Your task to perform on an android device: toggle notification dots Image 0: 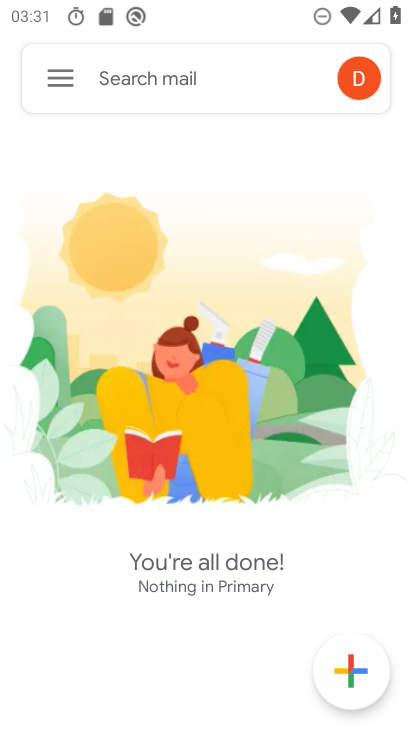
Step 0: press home button
Your task to perform on an android device: toggle notification dots Image 1: 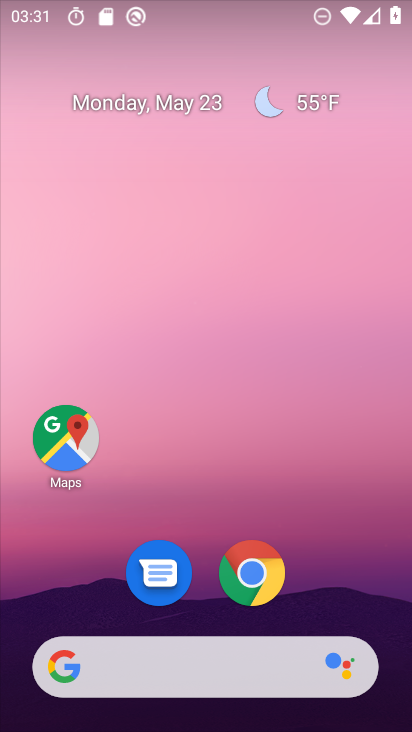
Step 1: drag from (335, 577) to (278, 53)
Your task to perform on an android device: toggle notification dots Image 2: 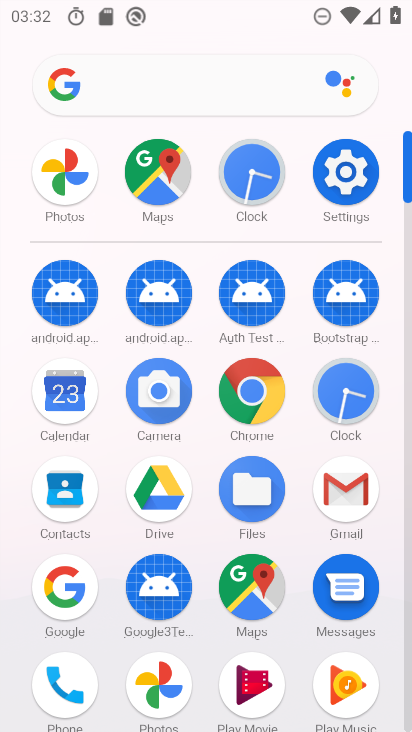
Step 2: click (343, 171)
Your task to perform on an android device: toggle notification dots Image 3: 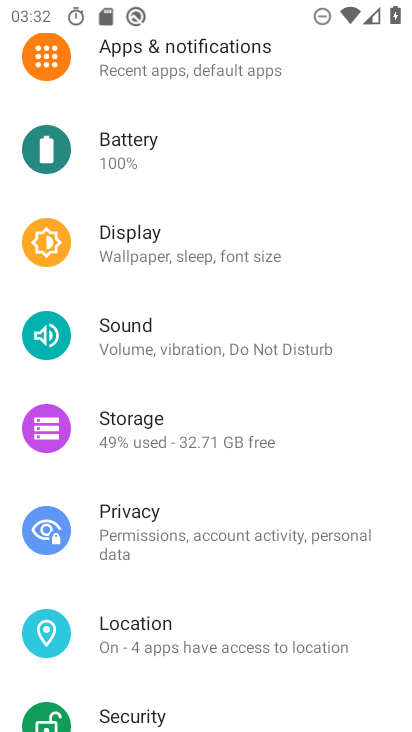
Step 3: click (218, 62)
Your task to perform on an android device: toggle notification dots Image 4: 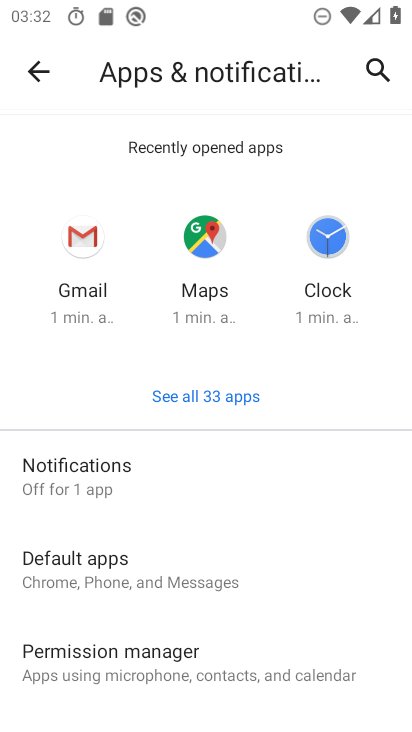
Step 4: click (137, 490)
Your task to perform on an android device: toggle notification dots Image 5: 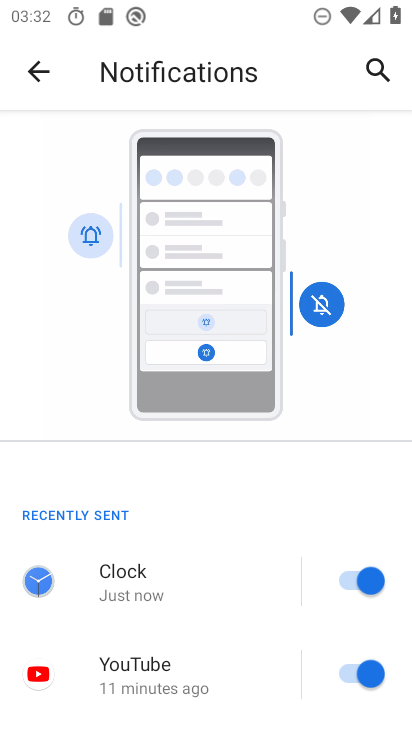
Step 5: drag from (259, 623) to (251, 222)
Your task to perform on an android device: toggle notification dots Image 6: 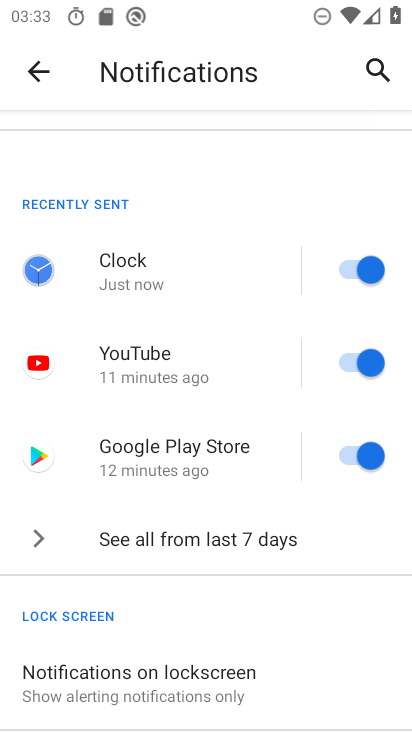
Step 6: click (219, 669)
Your task to perform on an android device: toggle notification dots Image 7: 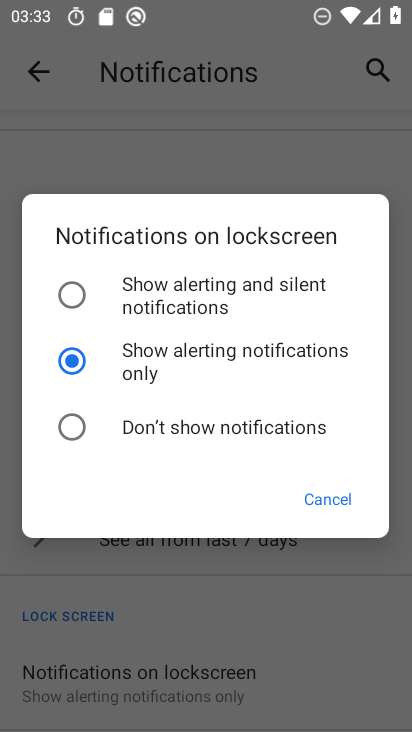
Step 7: click (277, 628)
Your task to perform on an android device: toggle notification dots Image 8: 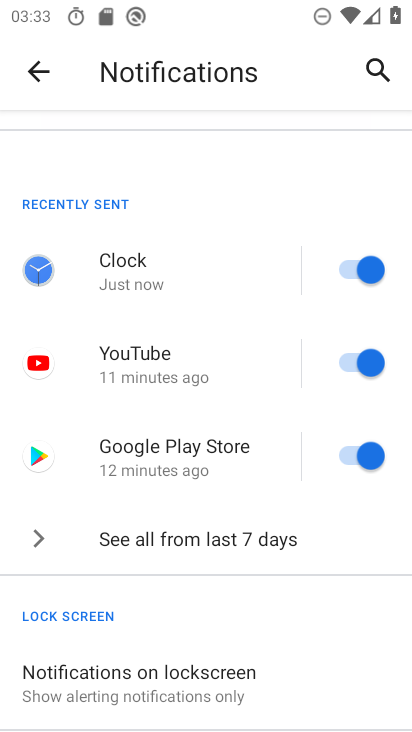
Step 8: drag from (301, 626) to (241, 219)
Your task to perform on an android device: toggle notification dots Image 9: 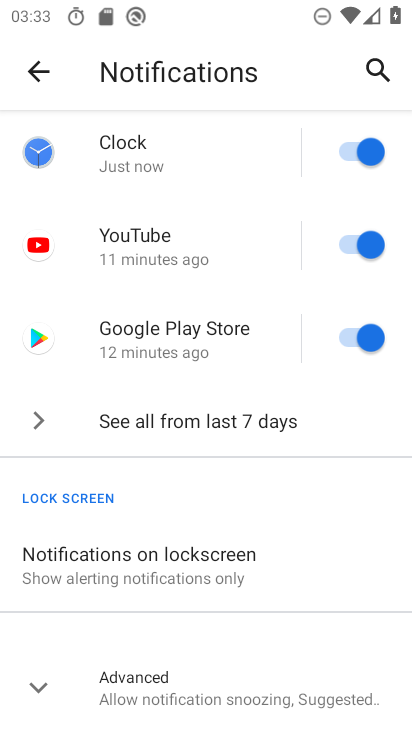
Step 9: click (259, 701)
Your task to perform on an android device: toggle notification dots Image 10: 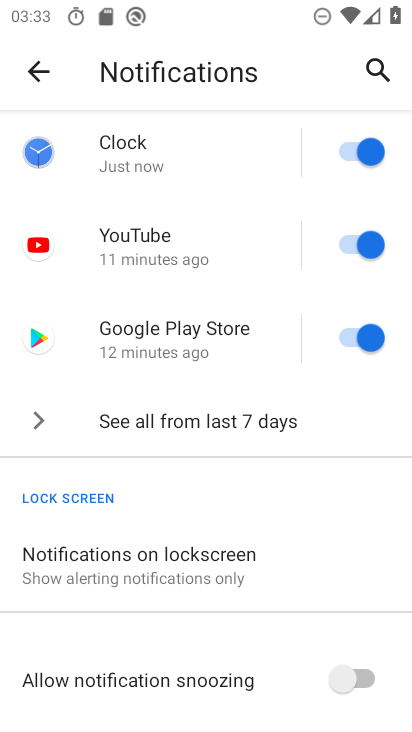
Step 10: drag from (285, 606) to (244, 306)
Your task to perform on an android device: toggle notification dots Image 11: 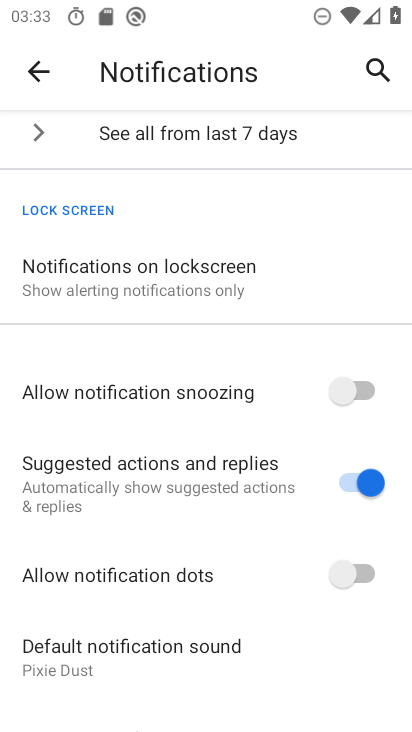
Step 11: click (371, 577)
Your task to perform on an android device: toggle notification dots Image 12: 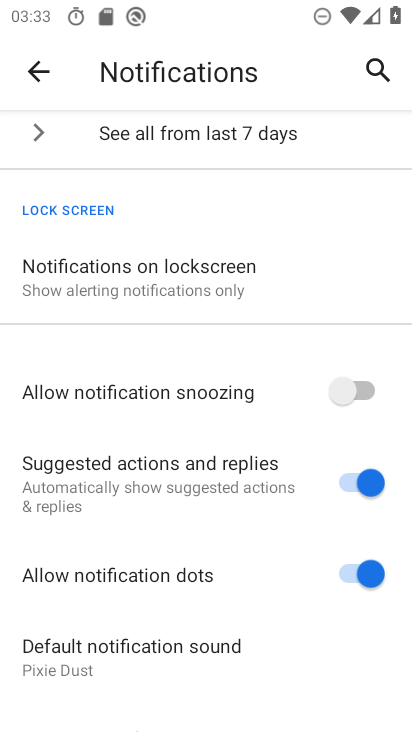
Step 12: task complete